Your task to perform on an android device: turn off improve location accuracy Image 0: 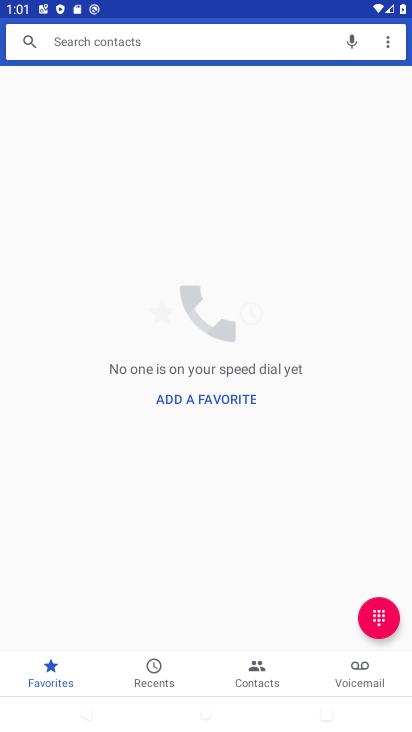
Step 0: press home button
Your task to perform on an android device: turn off improve location accuracy Image 1: 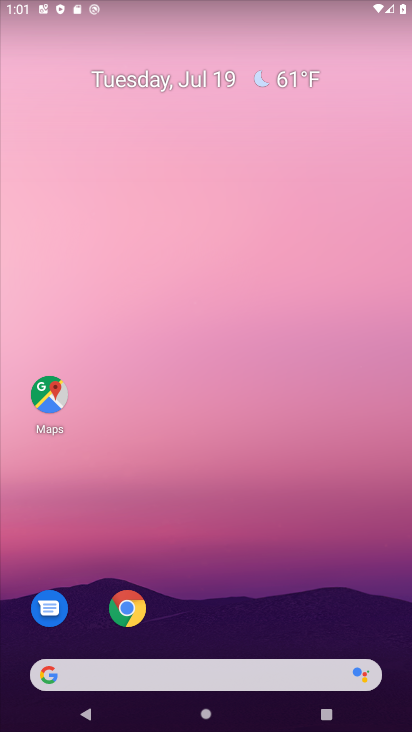
Step 1: drag from (310, 625) to (343, 68)
Your task to perform on an android device: turn off improve location accuracy Image 2: 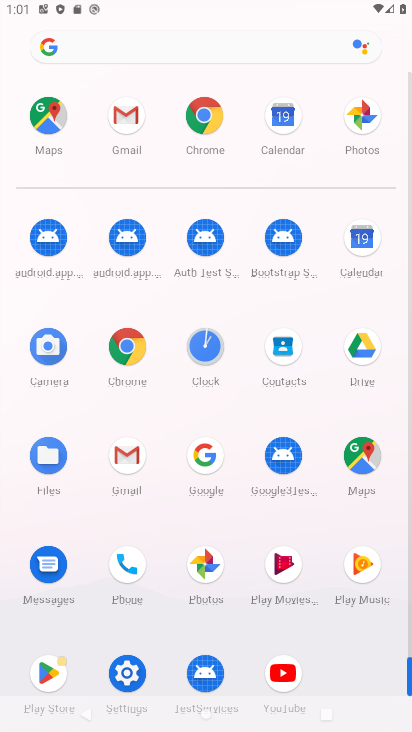
Step 2: click (131, 696)
Your task to perform on an android device: turn off improve location accuracy Image 3: 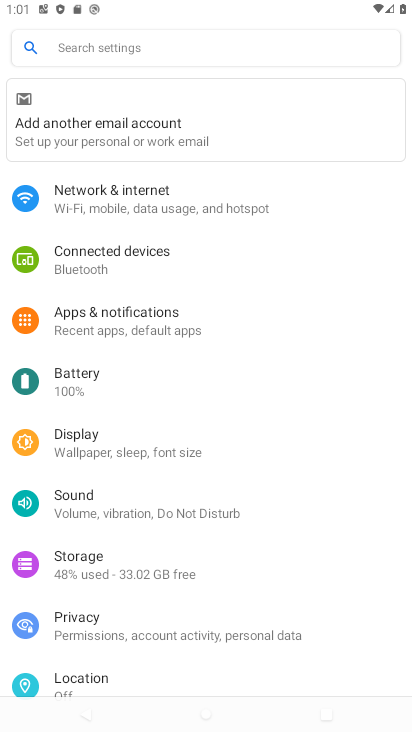
Step 3: drag from (84, 159) to (7, 151)
Your task to perform on an android device: turn off improve location accuracy Image 4: 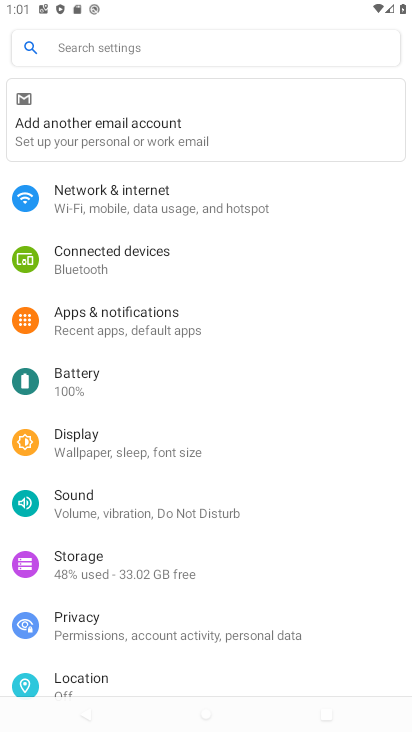
Step 4: click (67, 687)
Your task to perform on an android device: turn off improve location accuracy Image 5: 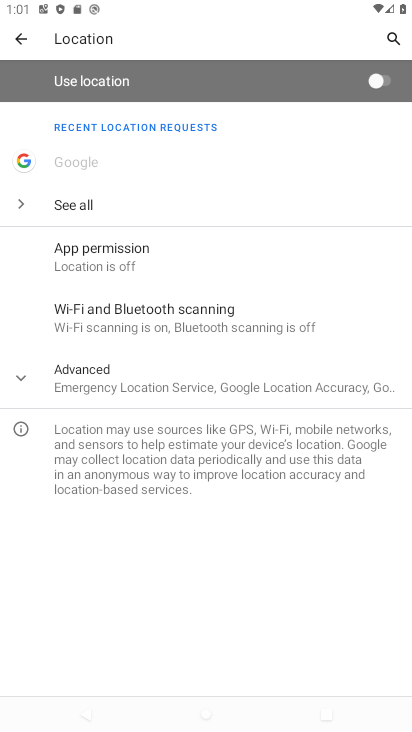
Step 5: click (112, 386)
Your task to perform on an android device: turn off improve location accuracy Image 6: 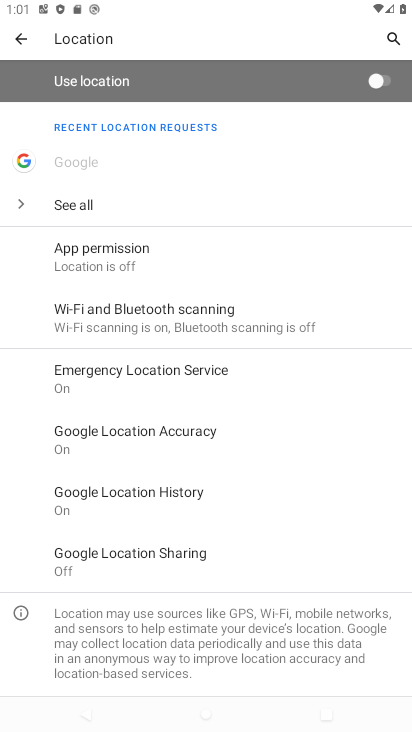
Step 6: click (108, 448)
Your task to perform on an android device: turn off improve location accuracy Image 7: 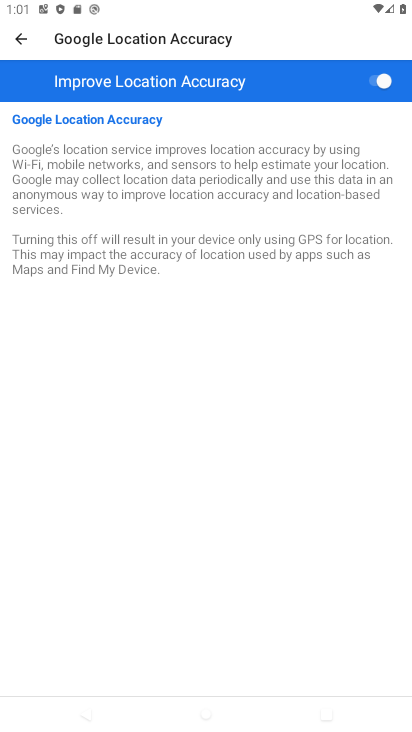
Step 7: click (378, 80)
Your task to perform on an android device: turn off improve location accuracy Image 8: 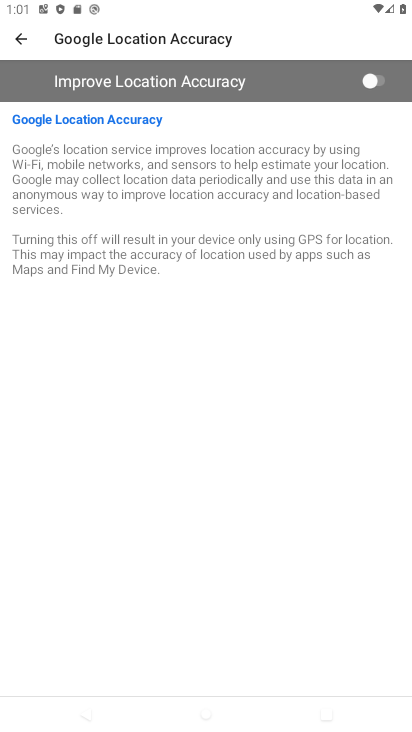
Step 8: task complete